Your task to perform on an android device: Open Reddit.com Image 0: 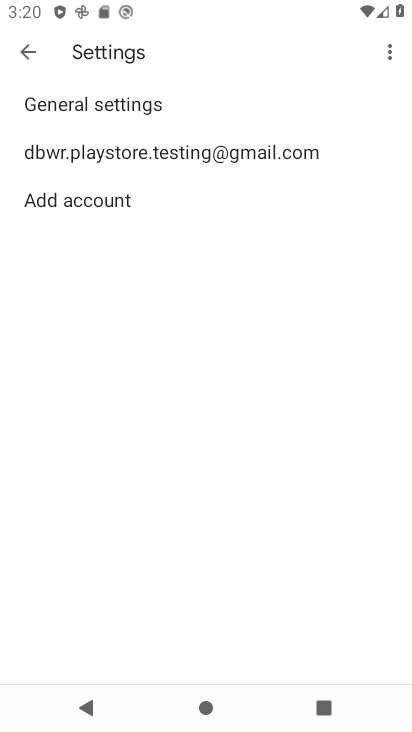
Step 0: press home button
Your task to perform on an android device: Open Reddit.com Image 1: 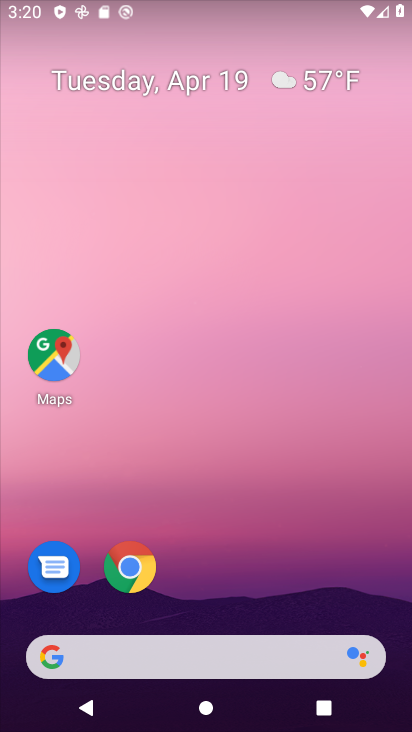
Step 1: drag from (370, 581) to (368, 156)
Your task to perform on an android device: Open Reddit.com Image 2: 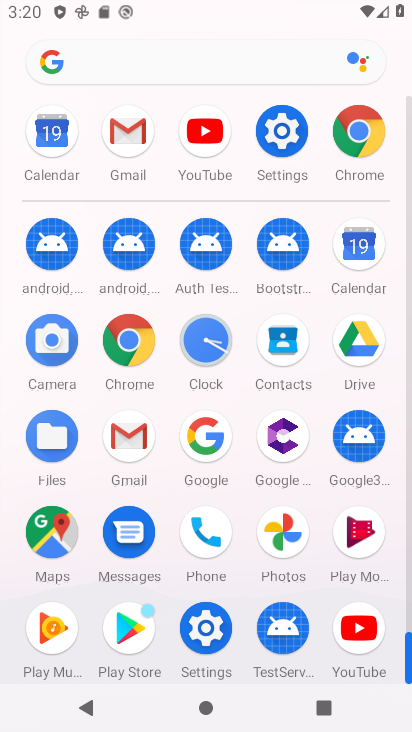
Step 2: click (370, 135)
Your task to perform on an android device: Open Reddit.com Image 3: 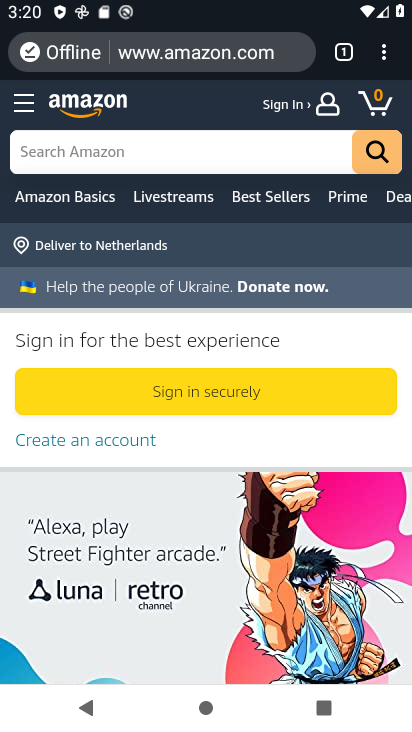
Step 3: press back button
Your task to perform on an android device: Open Reddit.com Image 4: 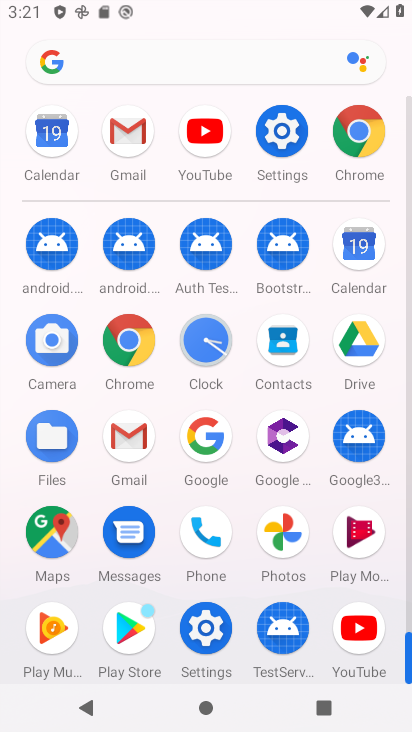
Step 4: click (365, 134)
Your task to perform on an android device: Open Reddit.com Image 5: 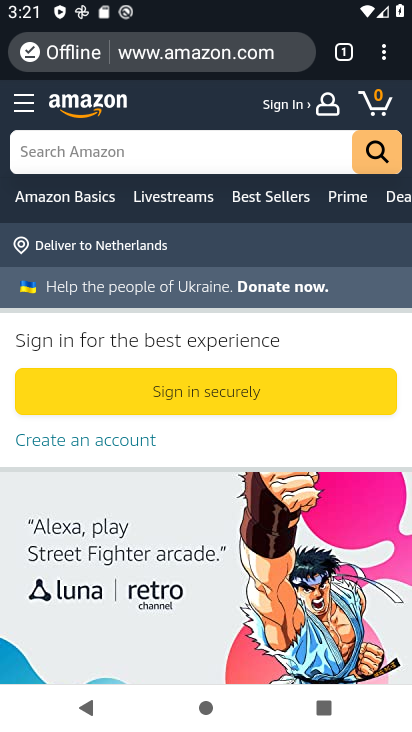
Step 5: press back button
Your task to perform on an android device: Open Reddit.com Image 6: 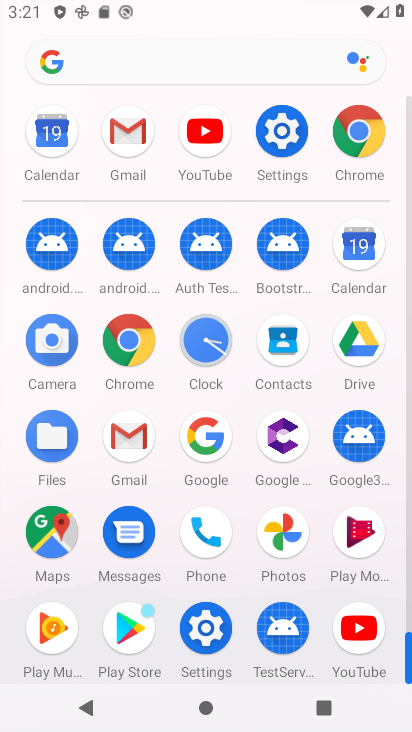
Step 6: click (353, 141)
Your task to perform on an android device: Open Reddit.com Image 7: 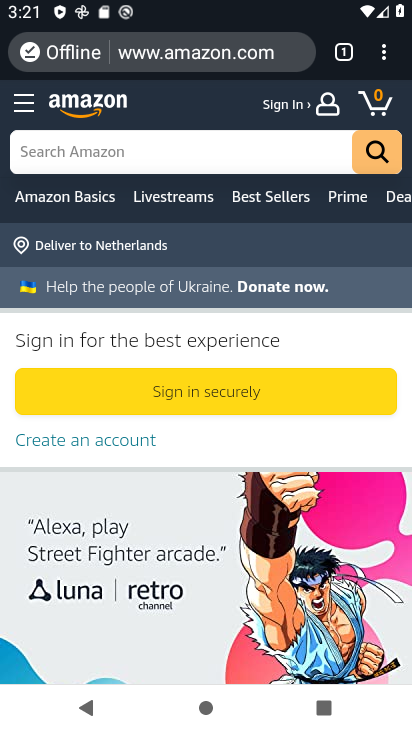
Step 7: click (176, 38)
Your task to perform on an android device: Open Reddit.com Image 8: 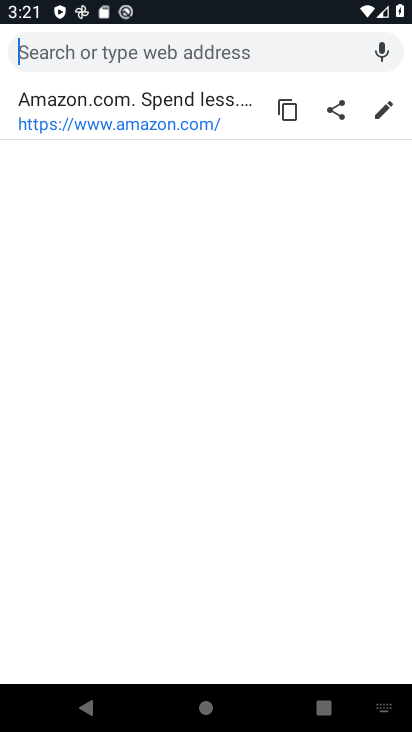
Step 8: type "reddit,com"
Your task to perform on an android device: Open Reddit.com Image 9: 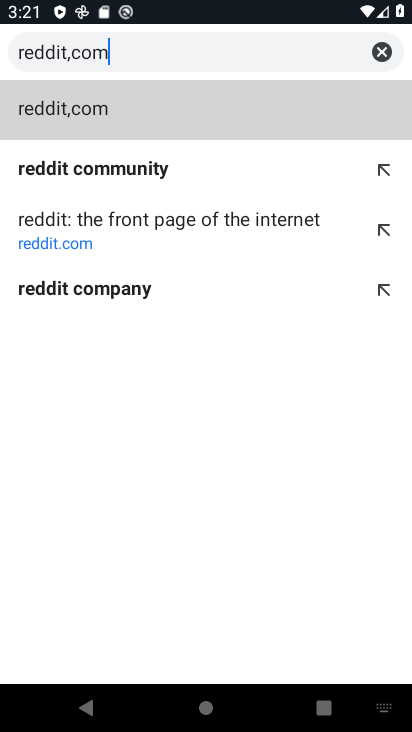
Step 9: click (88, 115)
Your task to perform on an android device: Open Reddit.com Image 10: 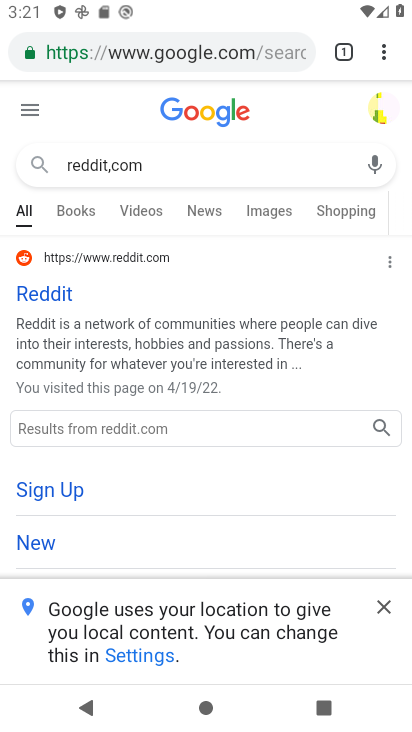
Step 10: task complete